Your task to perform on an android device: Open calendar and show me the third week of next month Image 0: 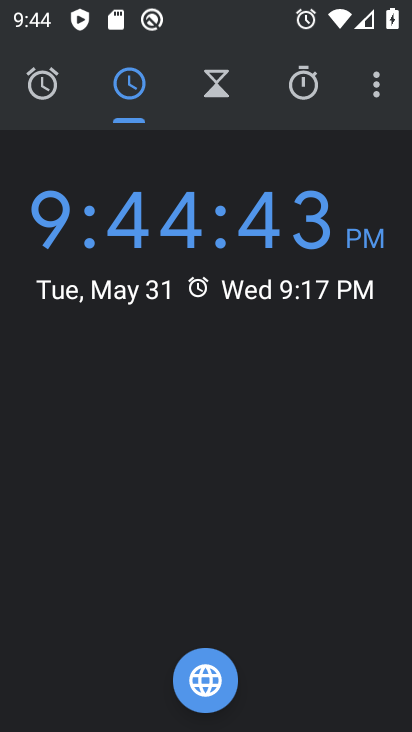
Step 0: press home button
Your task to perform on an android device: Open calendar and show me the third week of next month Image 1: 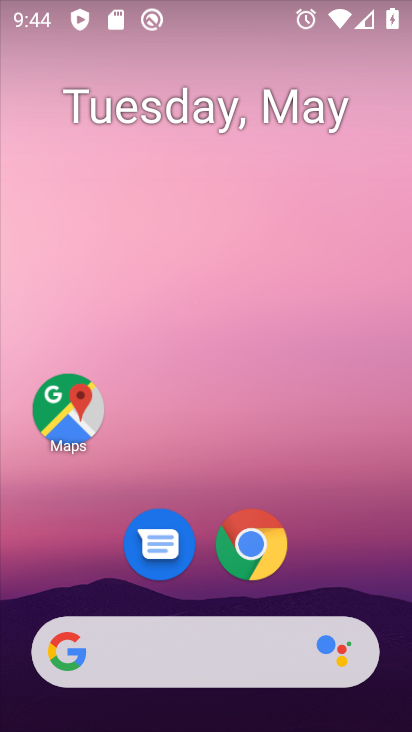
Step 1: drag from (348, 455) to (352, 211)
Your task to perform on an android device: Open calendar and show me the third week of next month Image 2: 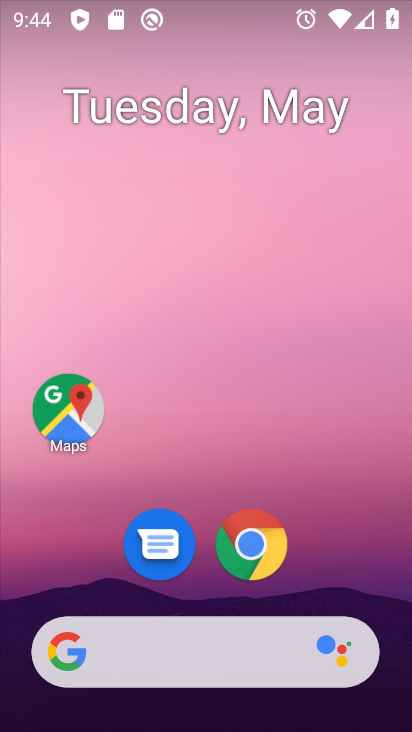
Step 2: drag from (360, 538) to (332, 185)
Your task to perform on an android device: Open calendar and show me the third week of next month Image 3: 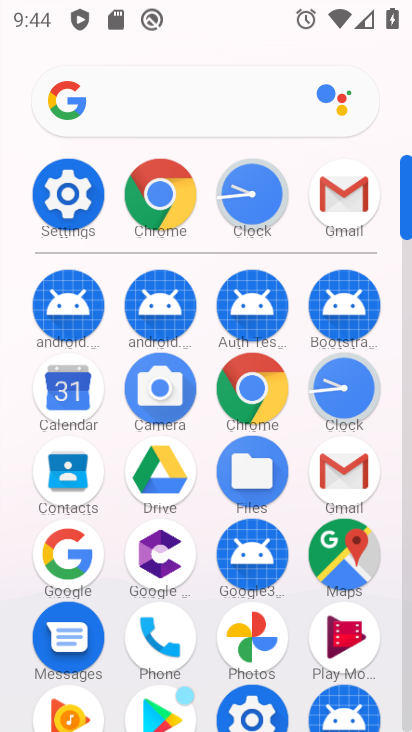
Step 3: click (72, 397)
Your task to perform on an android device: Open calendar and show me the third week of next month Image 4: 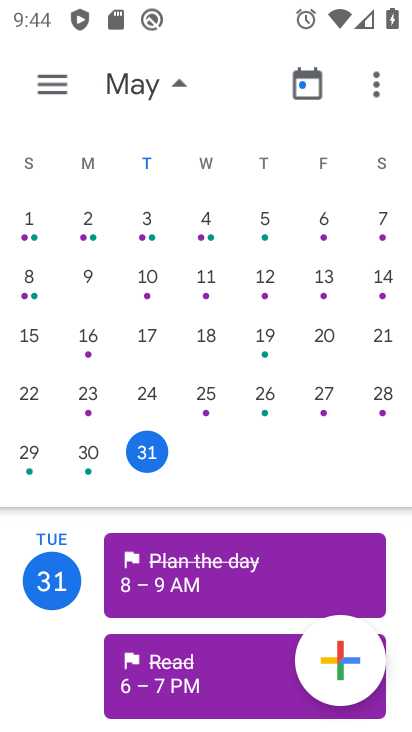
Step 4: drag from (350, 291) to (8, 281)
Your task to perform on an android device: Open calendar and show me the third week of next month Image 5: 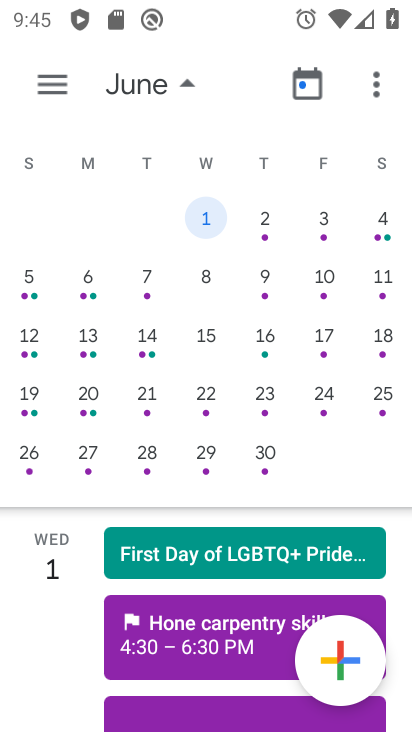
Step 5: click (31, 337)
Your task to perform on an android device: Open calendar and show me the third week of next month Image 6: 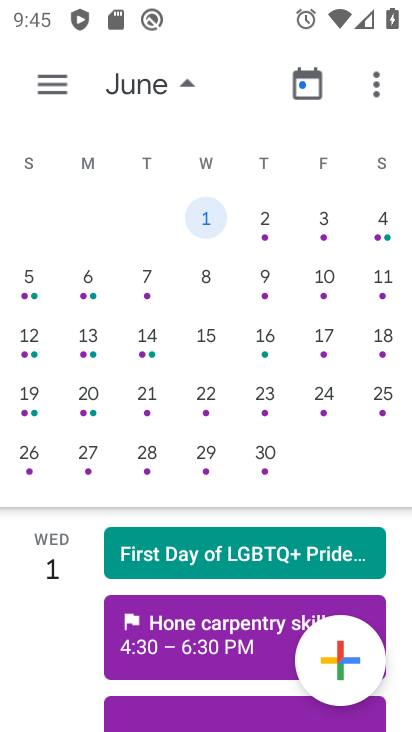
Step 6: click (35, 343)
Your task to perform on an android device: Open calendar and show me the third week of next month Image 7: 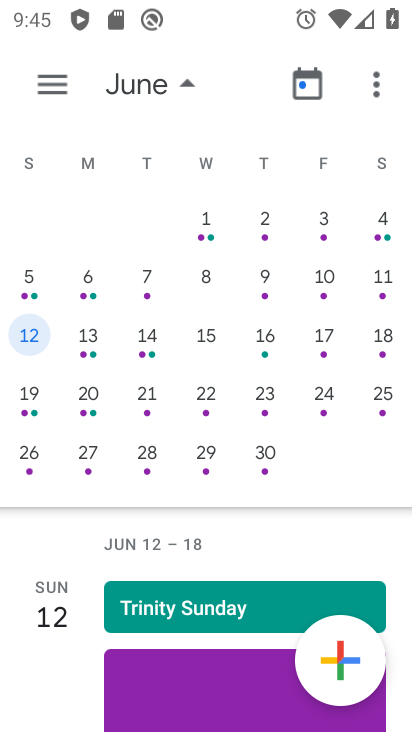
Step 7: task complete